Your task to perform on an android device: Clear the shopping cart on newegg.com. Search for macbook pro 13 inch on newegg.com, select the first entry, add it to the cart, then select checkout. Image 0: 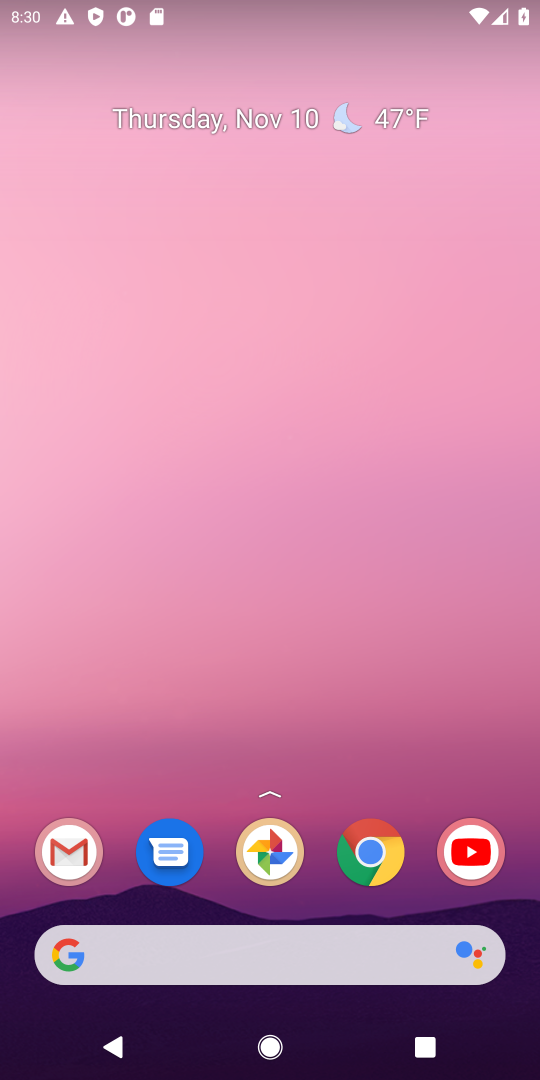
Step 0: click (381, 852)
Your task to perform on an android device: Clear the shopping cart on newegg.com. Search for macbook pro 13 inch on newegg.com, select the first entry, add it to the cart, then select checkout. Image 1: 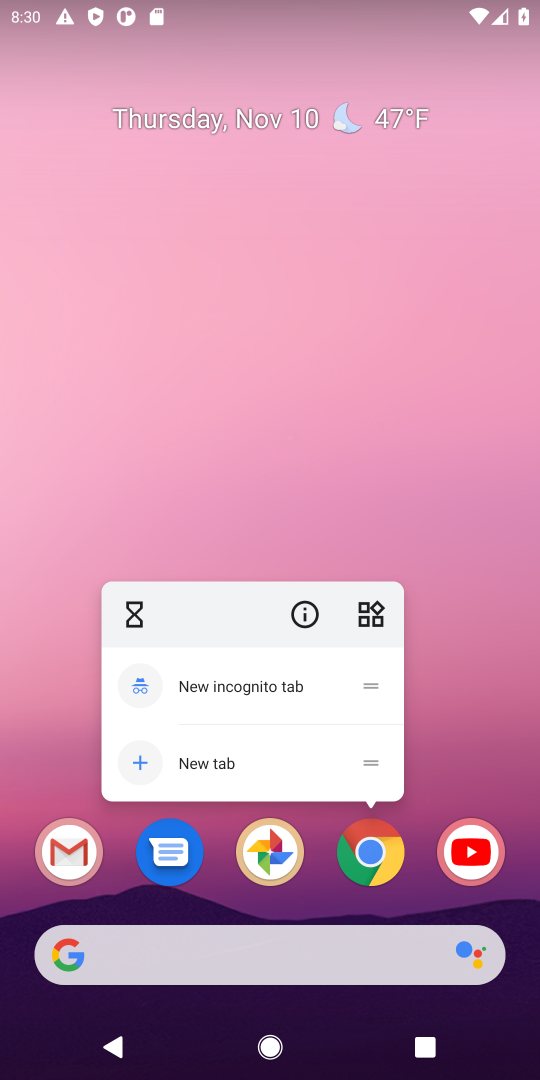
Step 1: click (381, 853)
Your task to perform on an android device: Clear the shopping cart on newegg.com. Search for macbook pro 13 inch on newegg.com, select the first entry, add it to the cart, then select checkout. Image 2: 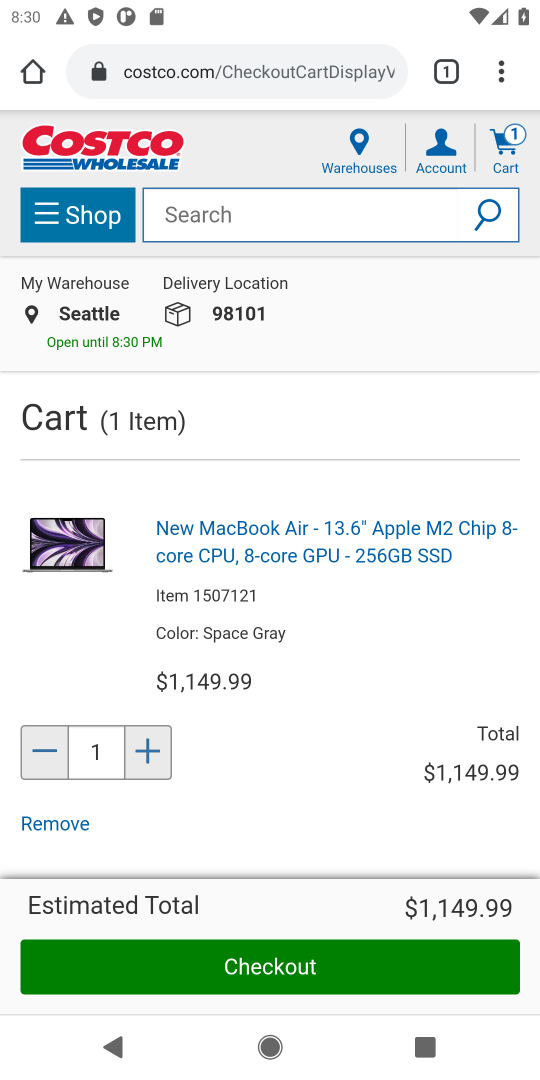
Step 2: click (290, 62)
Your task to perform on an android device: Clear the shopping cart on newegg.com. Search for macbook pro 13 inch on newegg.com, select the first entry, add it to the cart, then select checkout. Image 3: 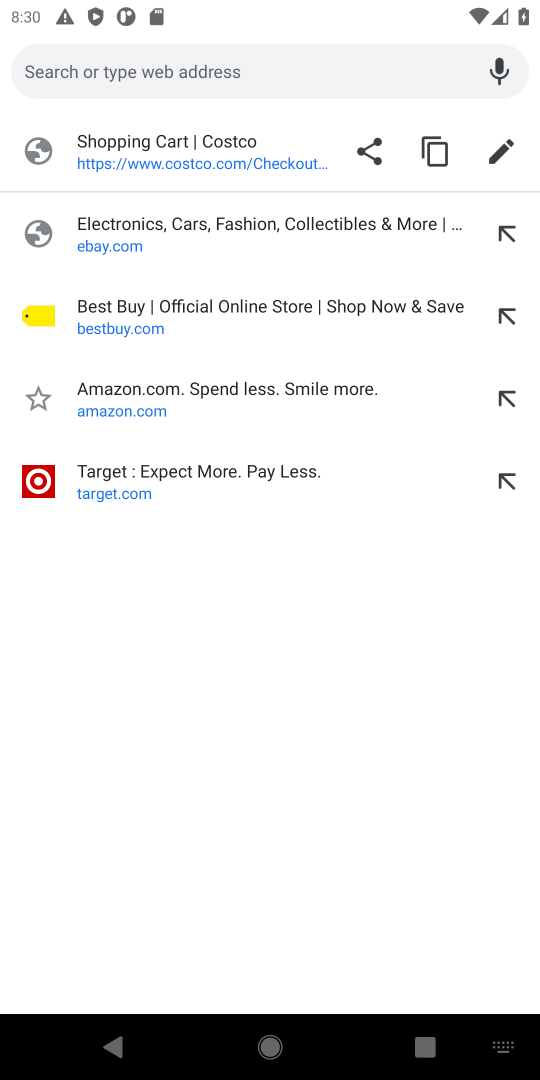
Step 3: type " newegg.com"
Your task to perform on an android device: Clear the shopping cart on newegg.com. Search for macbook pro 13 inch on newegg.com, select the first entry, add it to the cart, then select checkout. Image 4: 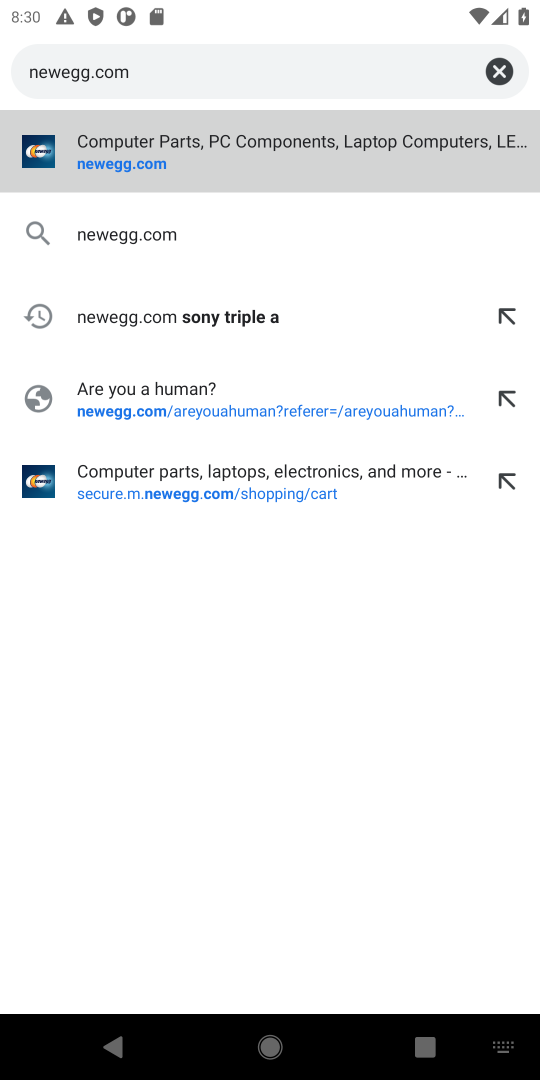
Step 4: press enter
Your task to perform on an android device: Clear the shopping cart on newegg.com. Search for macbook pro 13 inch on newegg.com, select the first entry, add it to the cart, then select checkout. Image 5: 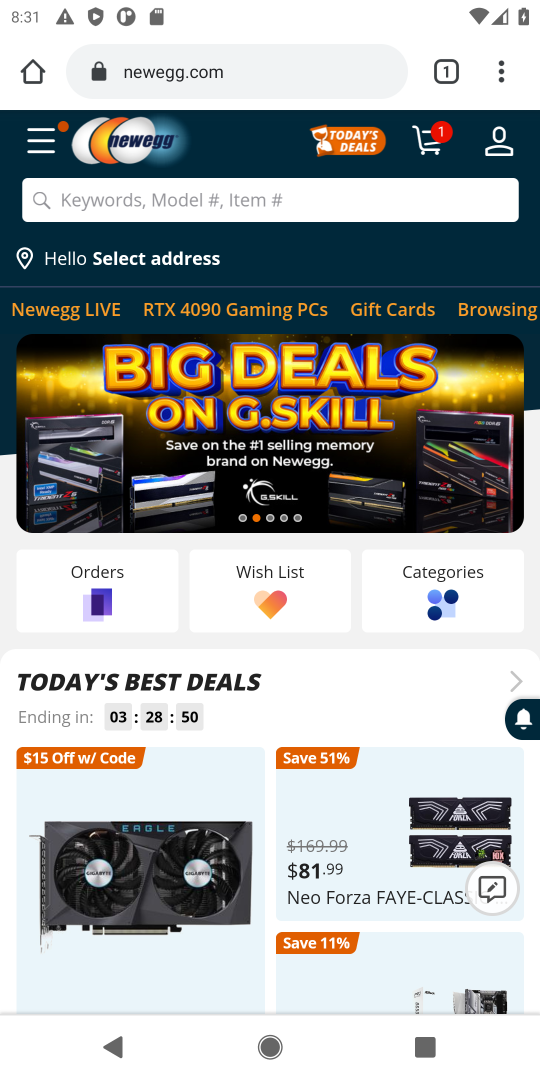
Step 5: click (431, 135)
Your task to perform on an android device: Clear the shopping cart on newegg.com. Search for macbook pro 13 inch on newegg.com, select the first entry, add it to the cart, then select checkout. Image 6: 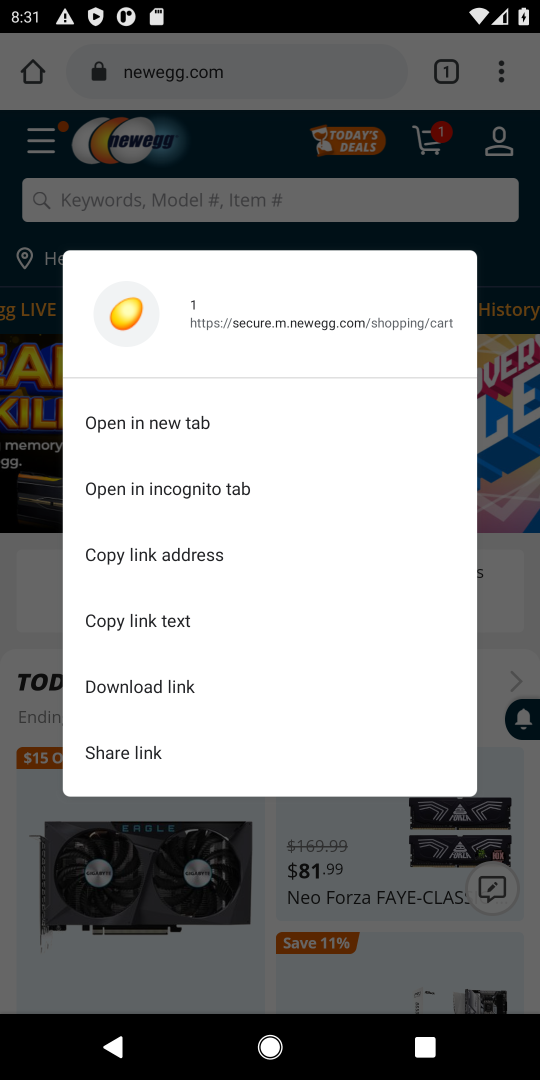
Step 6: click (448, 142)
Your task to perform on an android device: Clear the shopping cart on newegg.com. Search for macbook pro 13 inch on newegg.com, select the first entry, add it to the cart, then select checkout. Image 7: 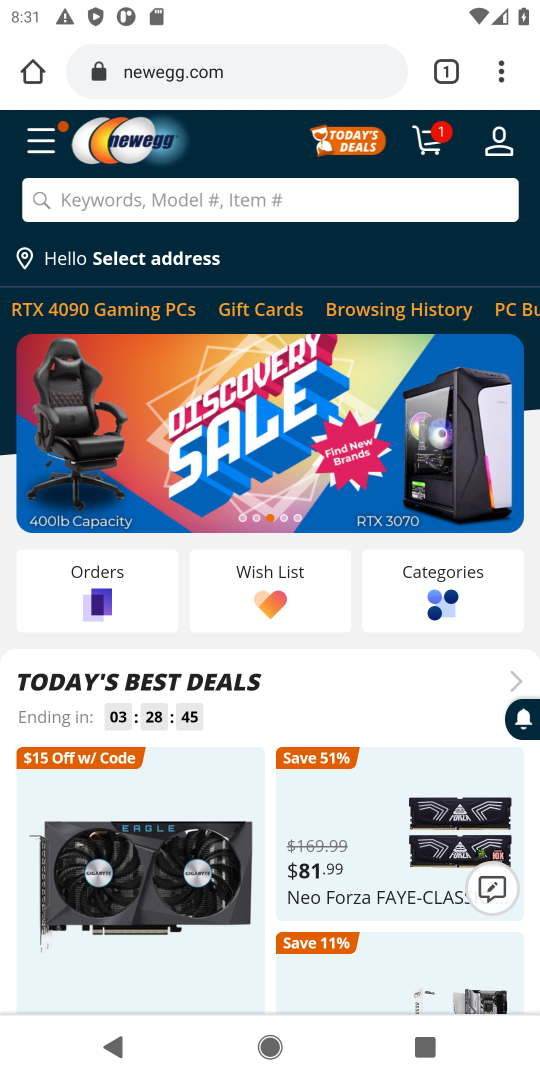
Step 7: click (435, 139)
Your task to perform on an android device: Clear the shopping cart on newegg.com. Search for macbook pro 13 inch on newegg.com, select the first entry, add it to the cart, then select checkout. Image 8: 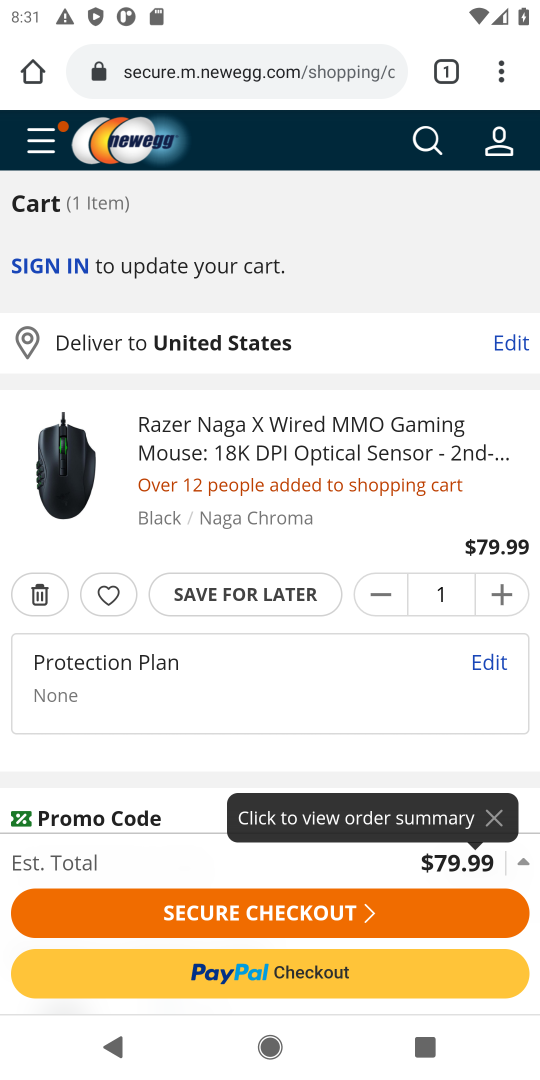
Step 8: click (43, 591)
Your task to perform on an android device: Clear the shopping cart on newegg.com. Search for macbook pro 13 inch on newegg.com, select the first entry, add it to the cart, then select checkout. Image 9: 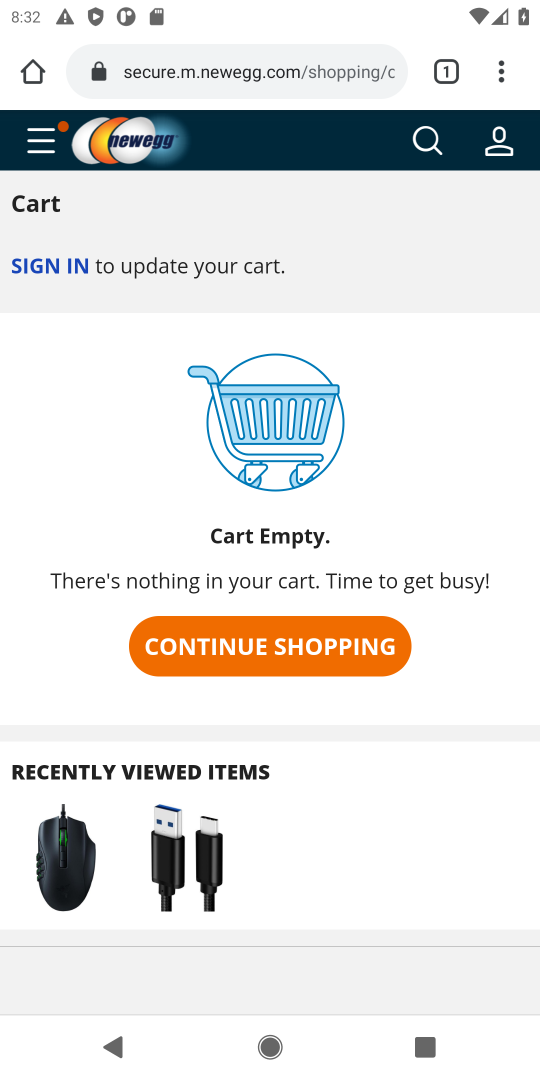
Step 9: click (429, 141)
Your task to perform on an android device: Clear the shopping cart on newegg.com. Search for macbook pro 13 inch on newegg.com, select the first entry, add it to the cart, then select checkout. Image 10: 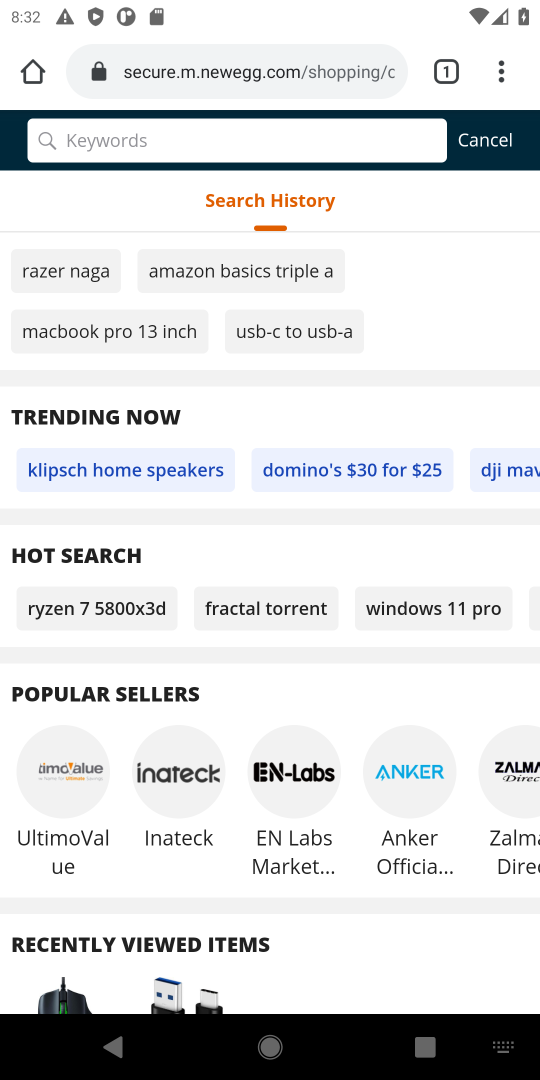
Step 10: type " macbook pro 13 inch "
Your task to perform on an android device: Clear the shopping cart on newegg.com. Search for macbook pro 13 inch on newegg.com, select the first entry, add it to the cart, then select checkout. Image 11: 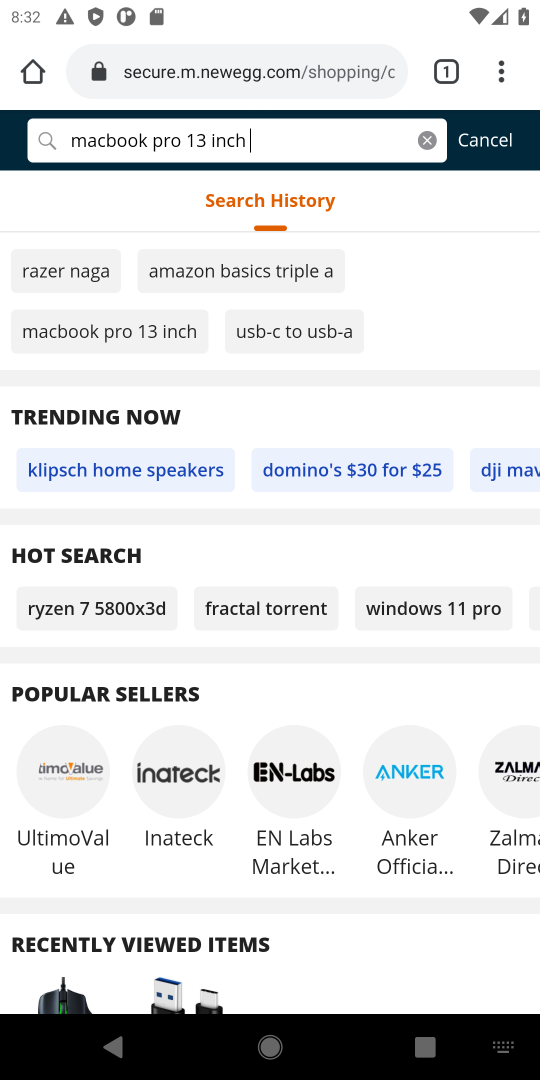
Step 11: press enter
Your task to perform on an android device: Clear the shopping cart on newegg.com. Search for macbook pro 13 inch on newegg.com, select the first entry, add it to the cart, then select checkout. Image 12: 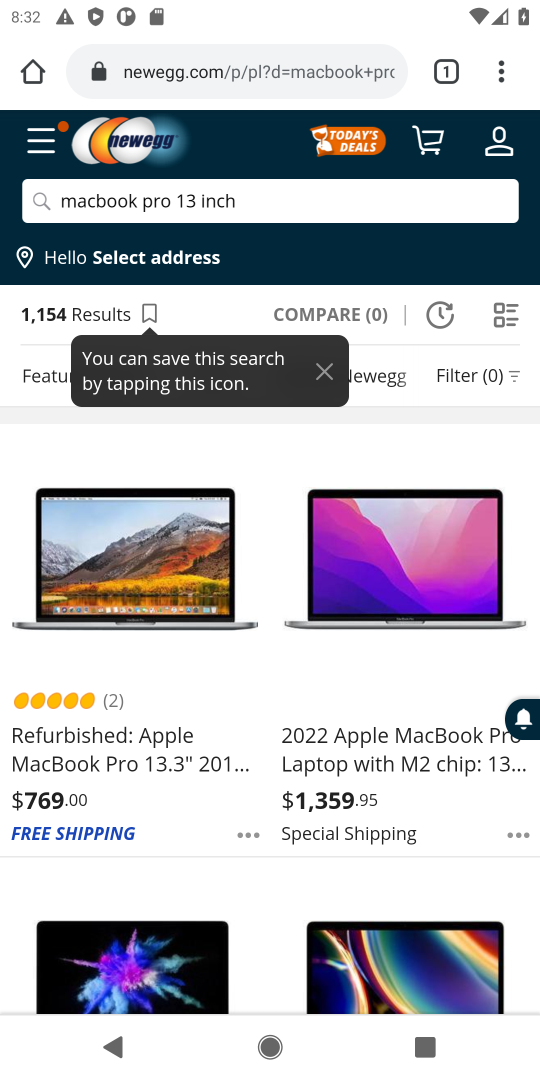
Step 12: task complete